Your task to perform on an android device: What's on my calendar tomorrow? Image 0: 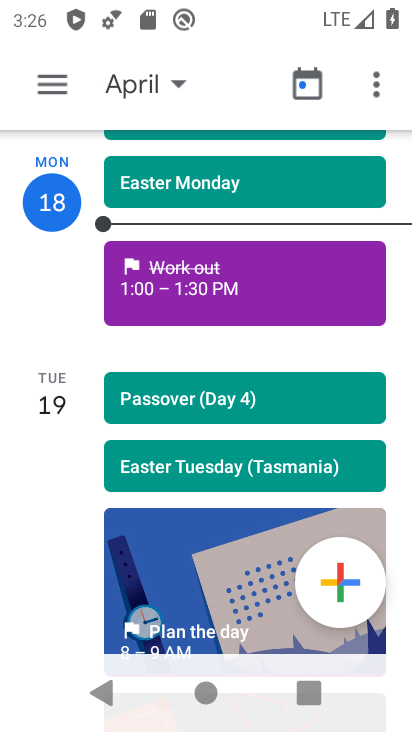
Step 0: click (42, 398)
Your task to perform on an android device: What's on my calendar tomorrow? Image 1: 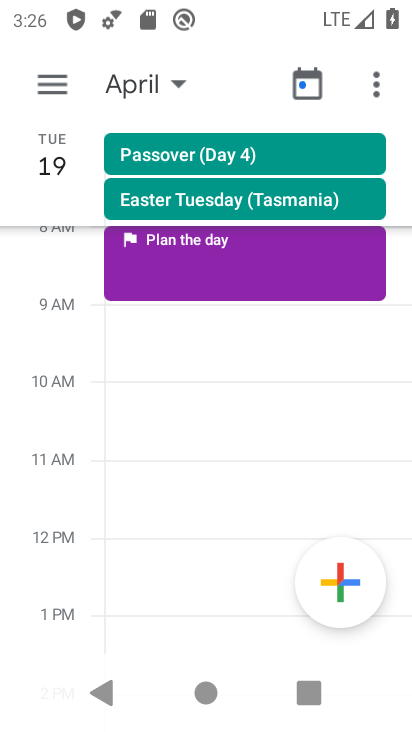
Step 1: task complete